Your task to perform on an android device: Search for Italian restaurants on Maps Image 0: 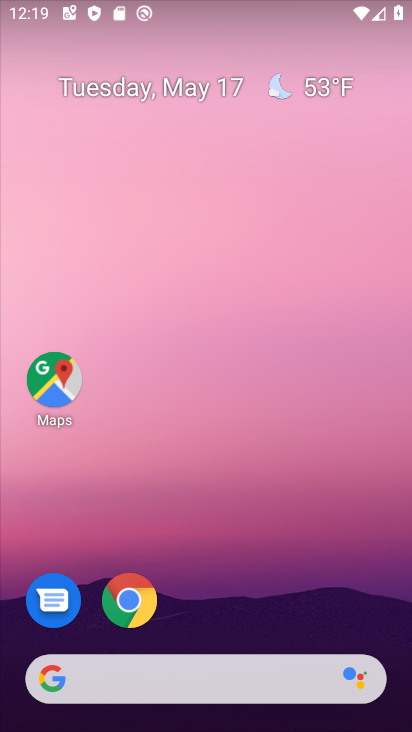
Step 0: drag from (248, 586) to (238, 223)
Your task to perform on an android device: Search for Italian restaurants on Maps Image 1: 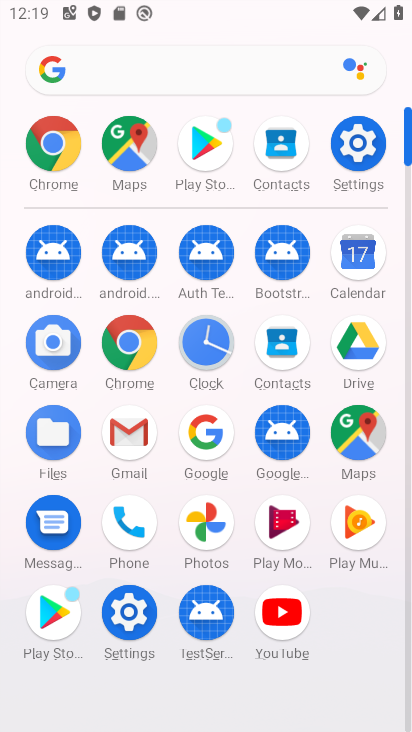
Step 1: click (144, 150)
Your task to perform on an android device: Search for Italian restaurants on Maps Image 2: 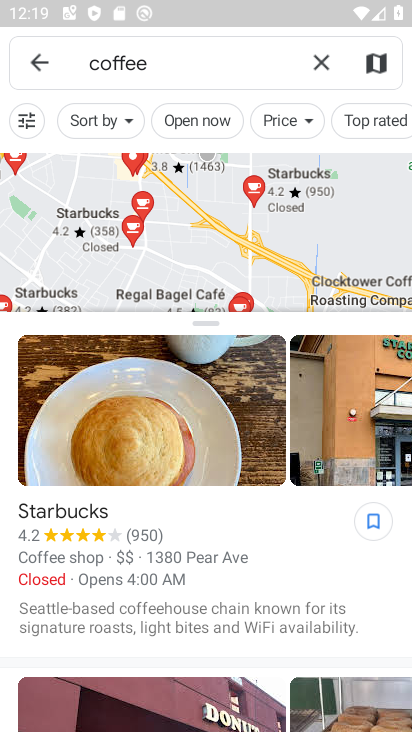
Step 2: click (324, 56)
Your task to perform on an android device: Search for Italian restaurants on Maps Image 3: 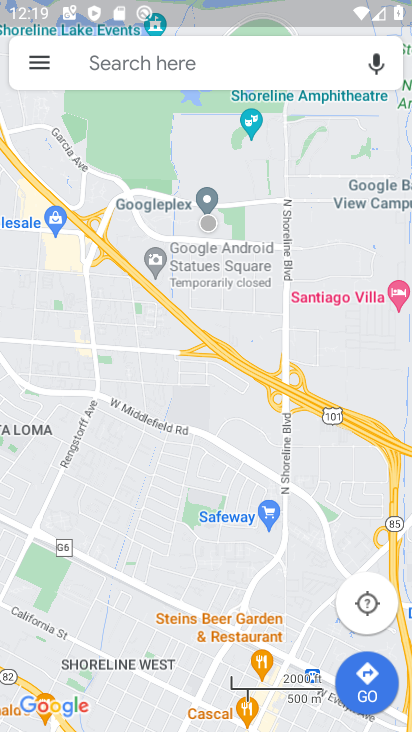
Step 3: click (167, 64)
Your task to perform on an android device: Search for Italian restaurants on Maps Image 4: 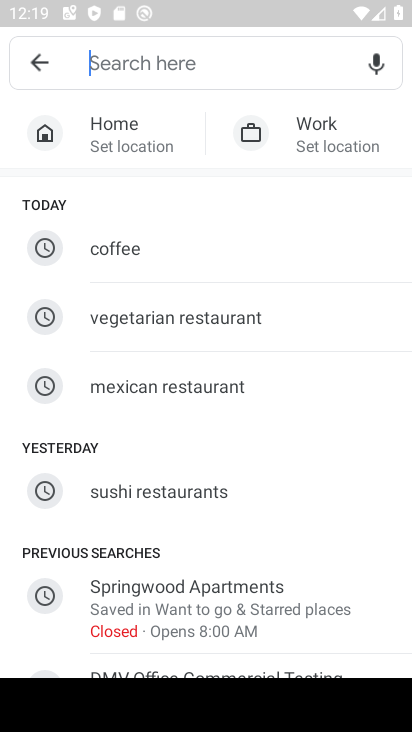
Step 4: type "Italian restaurants"
Your task to perform on an android device: Search for Italian restaurants on Maps Image 5: 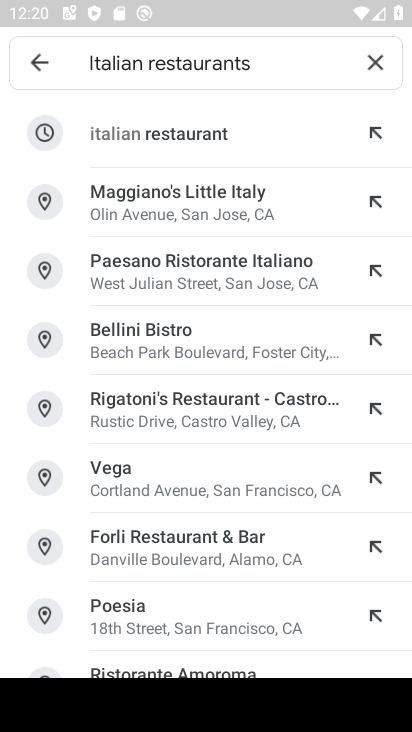
Step 5: click (250, 141)
Your task to perform on an android device: Search for Italian restaurants on Maps Image 6: 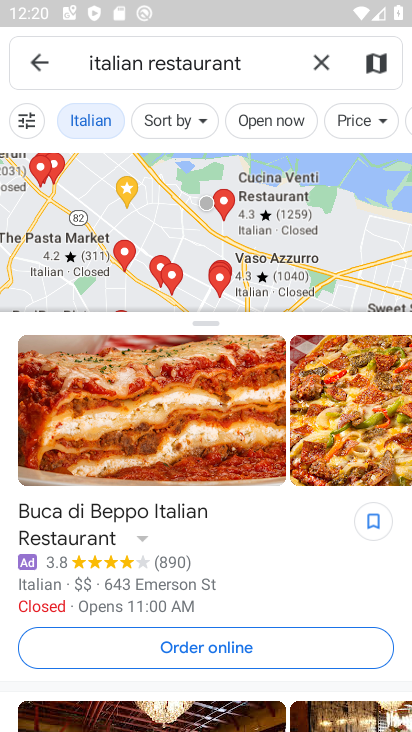
Step 6: task complete